Your task to perform on an android device: turn pop-ups off in chrome Image 0: 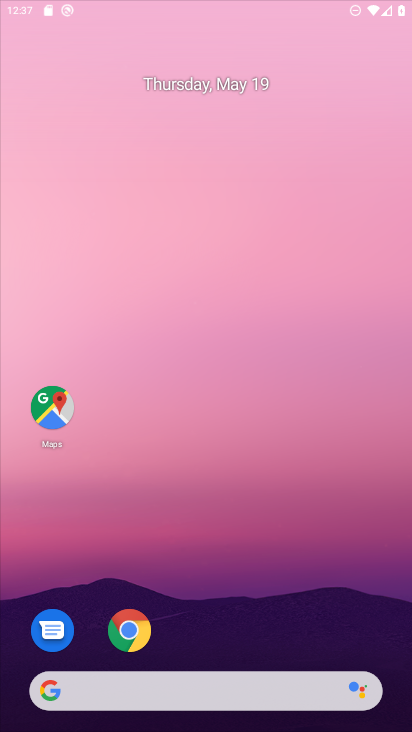
Step 0: click (205, 189)
Your task to perform on an android device: turn pop-ups off in chrome Image 1: 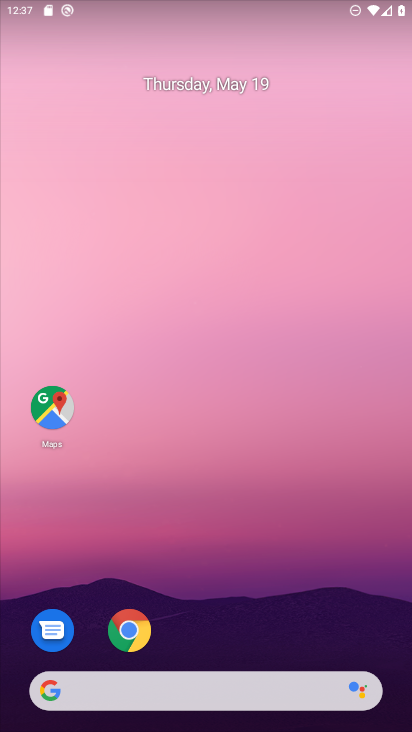
Step 1: click (122, 627)
Your task to perform on an android device: turn pop-ups off in chrome Image 2: 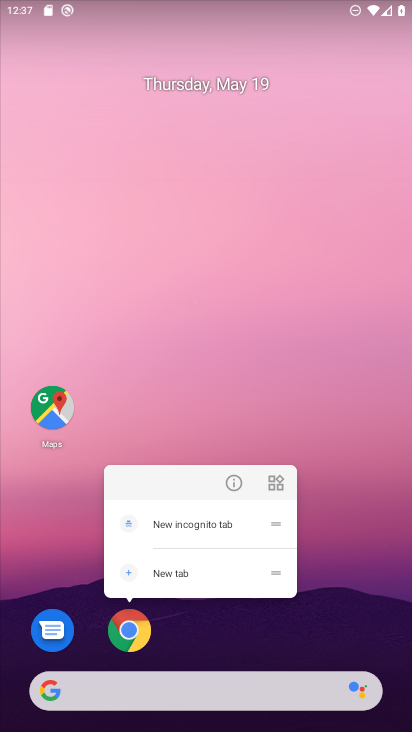
Step 2: click (228, 485)
Your task to perform on an android device: turn pop-ups off in chrome Image 3: 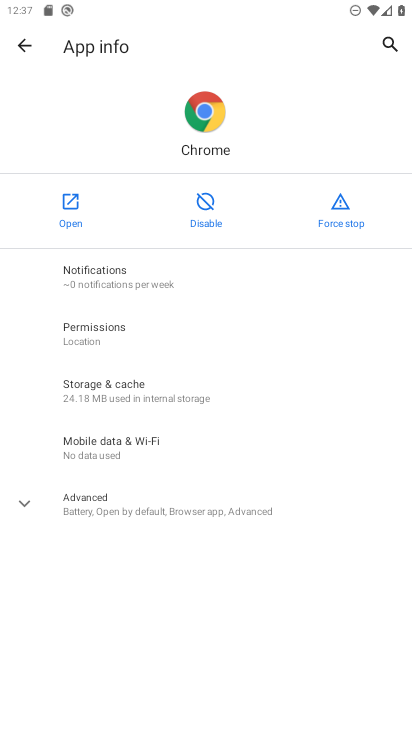
Step 3: click (60, 206)
Your task to perform on an android device: turn pop-ups off in chrome Image 4: 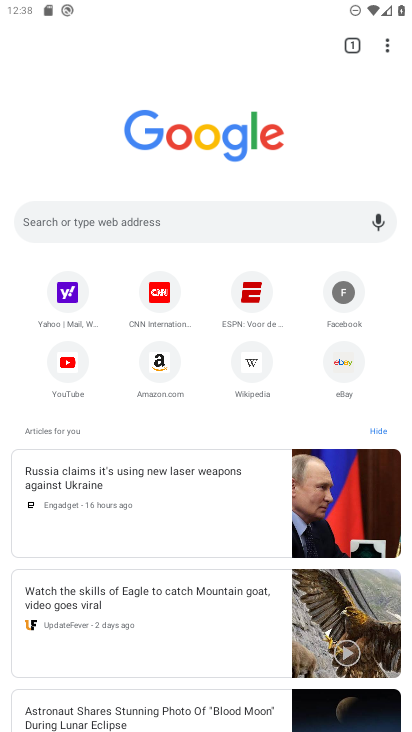
Step 4: click (388, 54)
Your task to perform on an android device: turn pop-ups off in chrome Image 5: 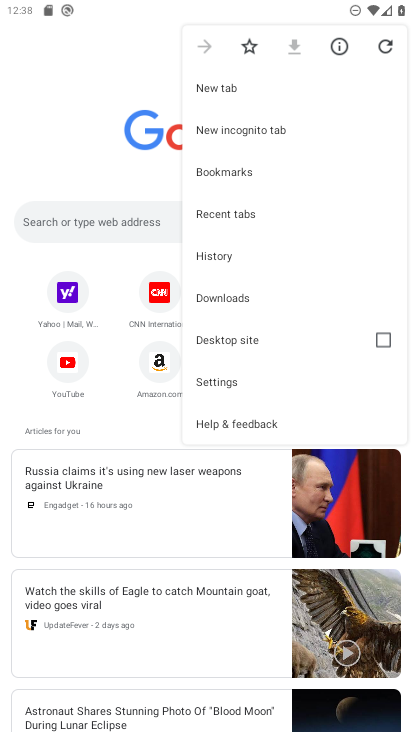
Step 5: click (236, 389)
Your task to perform on an android device: turn pop-ups off in chrome Image 6: 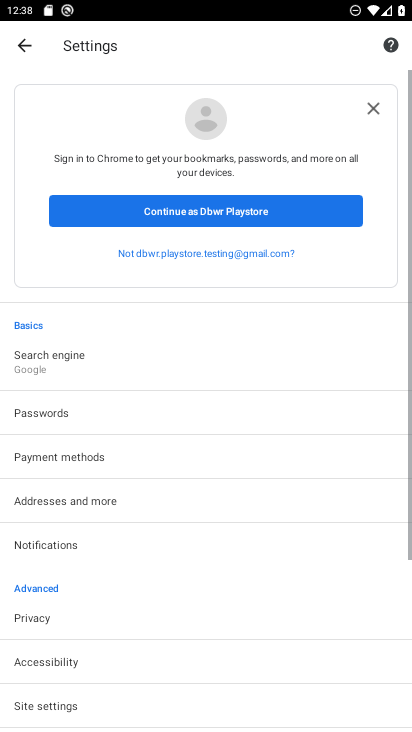
Step 6: drag from (202, 598) to (289, 232)
Your task to perform on an android device: turn pop-ups off in chrome Image 7: 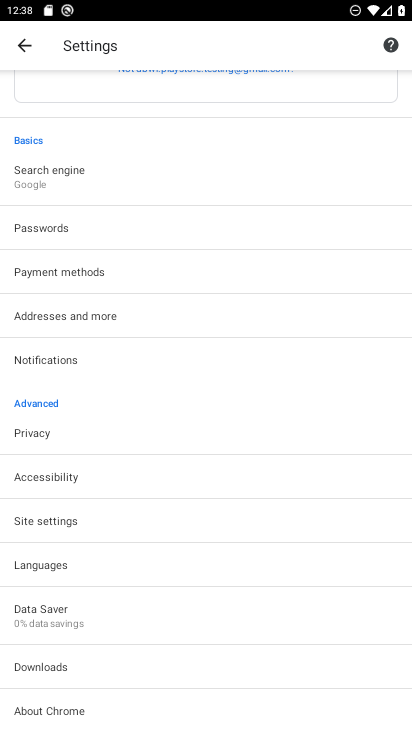
Step 7: click (62, 524)
Your task to perform on an android device: turn pop-ups off in chrome Image 8: 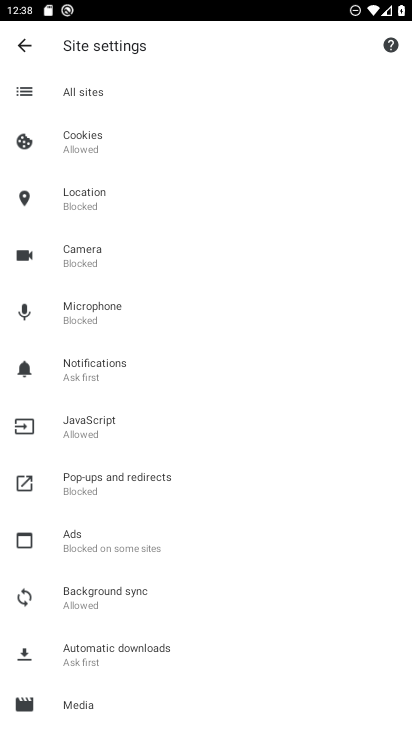
Step 8: click (153, 482)
Your task to perform on an android device: turn pop-ups off in chrome Image 9: 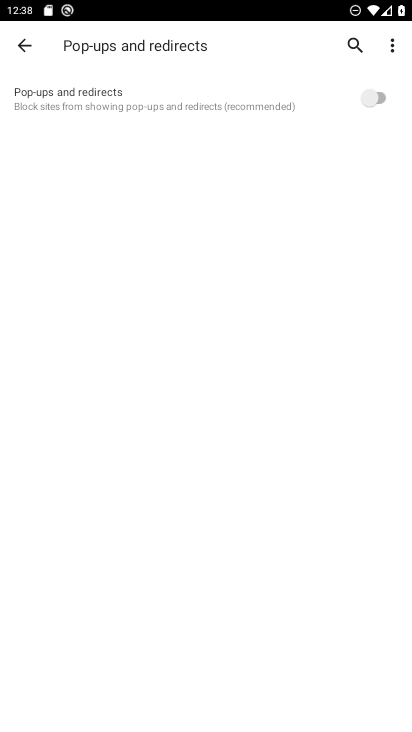
Step 9: task complete